Your task to perform on an android device: change your default location settings in chrome Image 0: 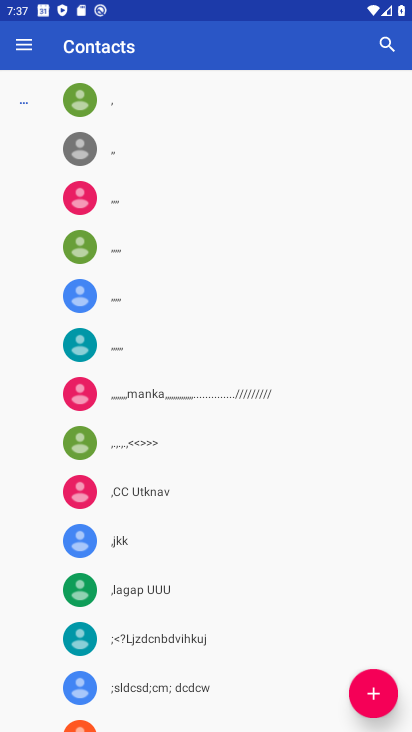
Step 0: press home button
Your task to perform on an android device: change your default location settings in chrome Image 1: 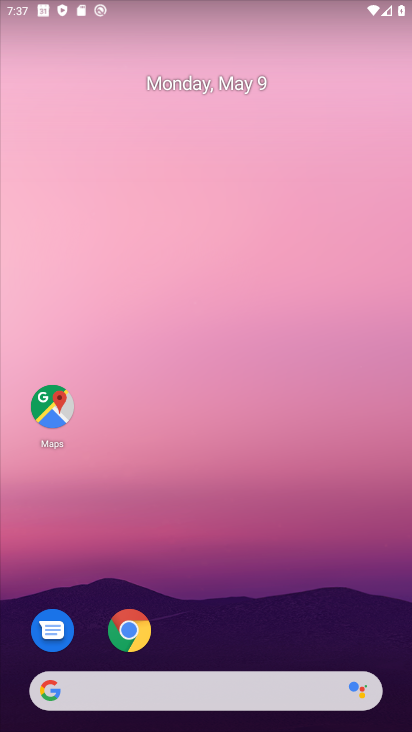
Step 1: drag from (349, 545) to (379, 47)
Your task to perform on an android device: change your default location settings in chrome Image 2: 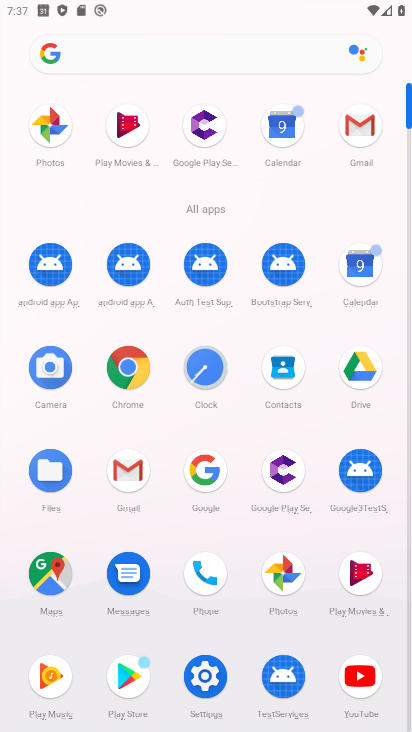
Step 2: click (122, 379)
Your task to perform on an android device: change your default location settings in chrome Image 3: 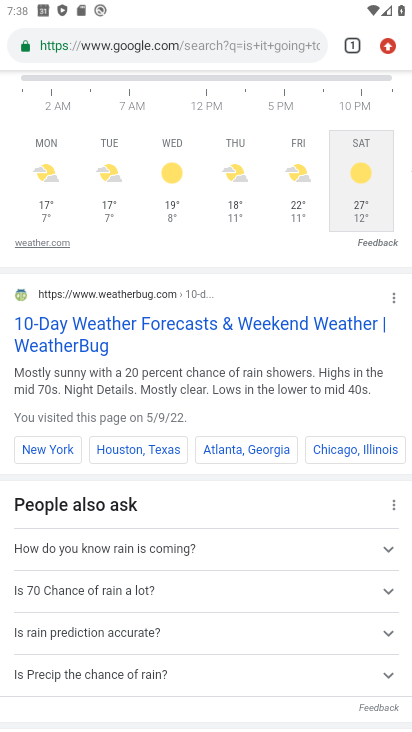
Step 3: drag from (387, 50) to (263, 553)
Your task to perform on an android device: change your default location settings in chrome Image 4: 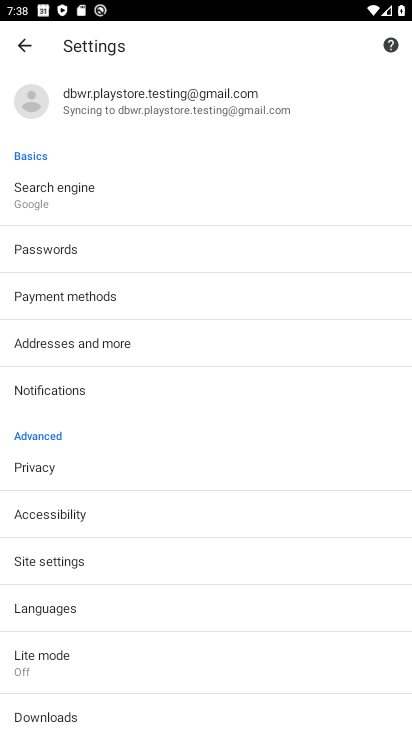
Step 4: click (70, 558)
Your task to perform on an android device: change your default location settings in chrome Image 5: 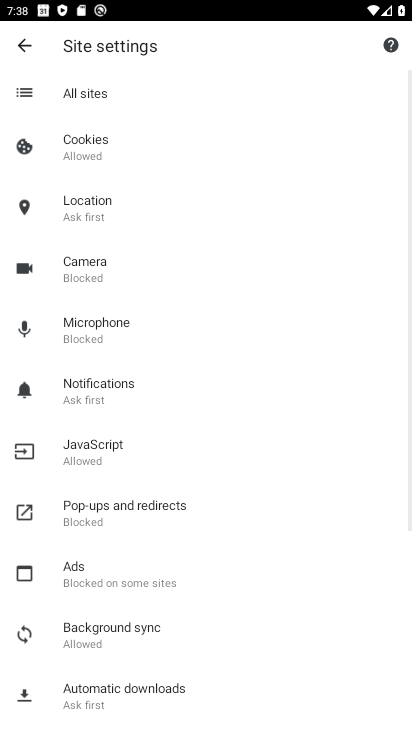
Step 5: click (111, 203)
Your task to perform on an android device: change your default location settings in chrome Image 6: 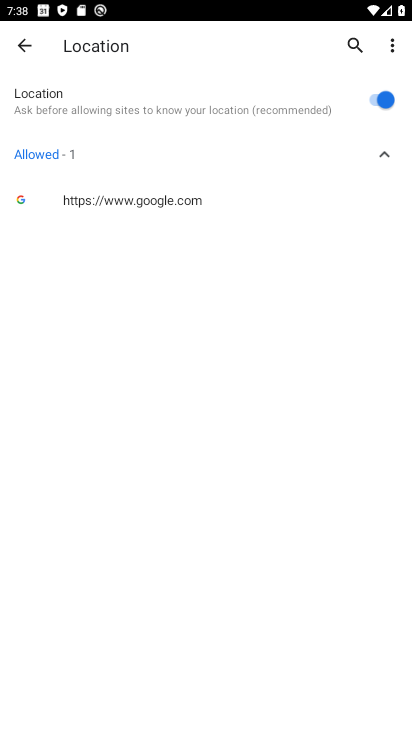
Step 6: click (373, 96)
Your task to perform on an android device: change your default location settings in chrome Image 7: 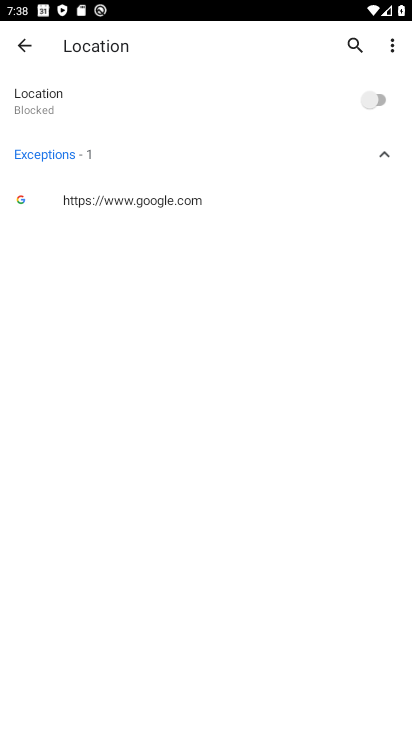
Step 7: task complete